Your task to perform on an android device: see sites visited before in the chrome app Image 0: 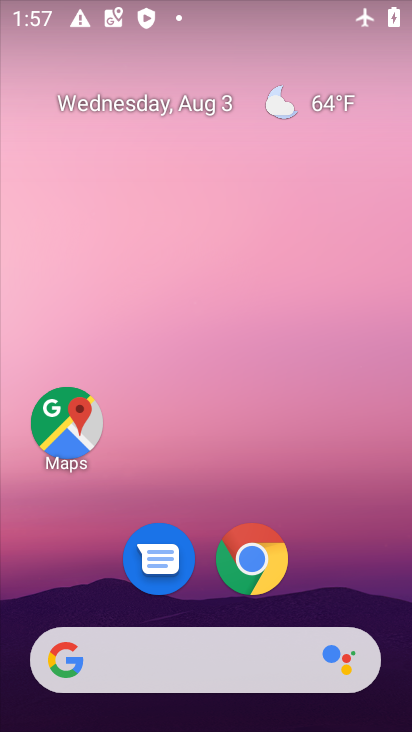
Step 0: drag from (190, 617) to (194, 63)
Your task to perform on an android device: see sites visited before in the chrome app Image 1: 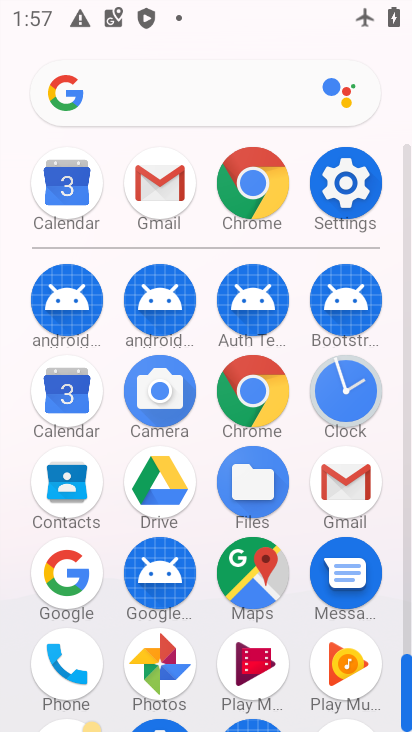
Step 1: click (254, 390)
Your task to perform on an android device: see sites visited before in the chrome app Image 2: 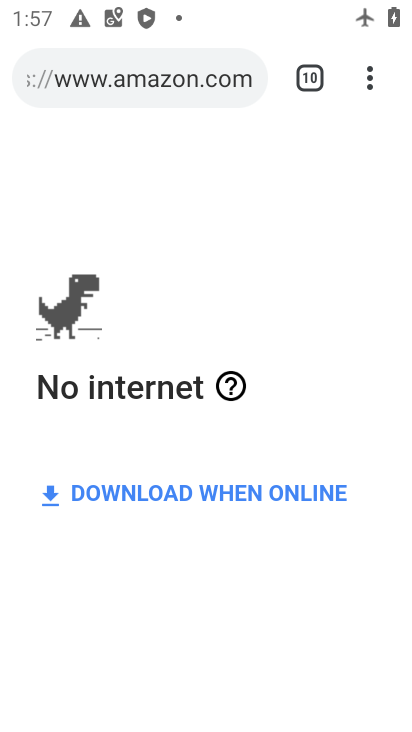
Step 2: click (370, 84)
Your task to perform on an android device: see sites visited before in the chrome app Image 3: 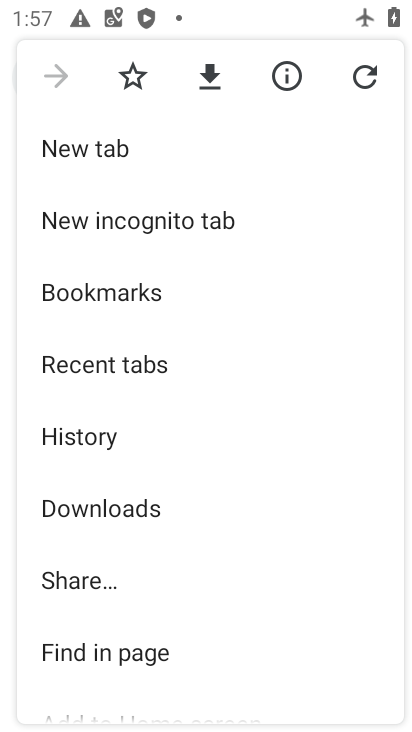
Step 3: click (84, 356)
Your task to perform on an android device: see sites visited before in the chrome app Image 4: 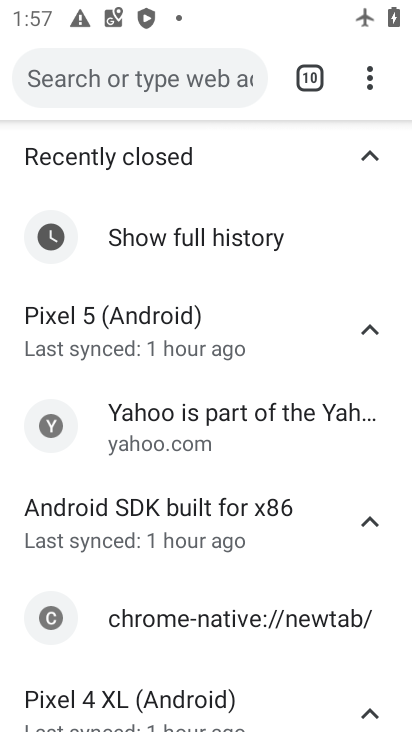
Step 4: task complete